Your task to perform on an android device: Go to eBay Image 0: 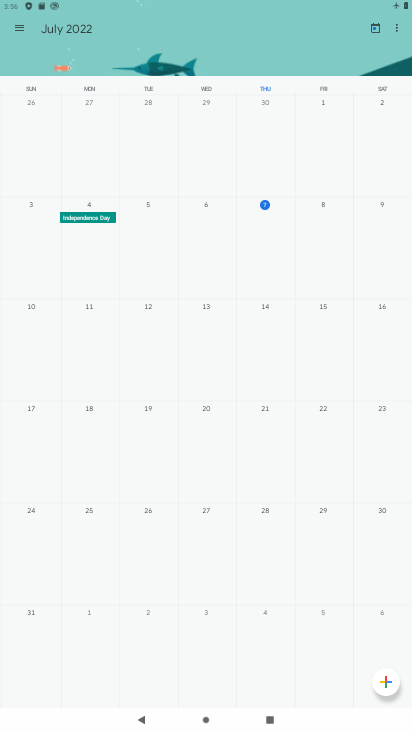
Step 0: press home button
Your task to perform on an android device: Go to eBay Image 1: 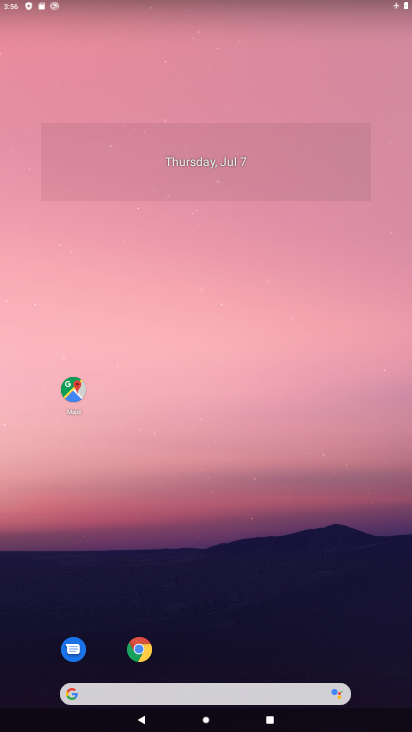
Step 1: drag from (198, 593) to (284, 4)
Your task to perform on an android device: Go to eBay Image 2: 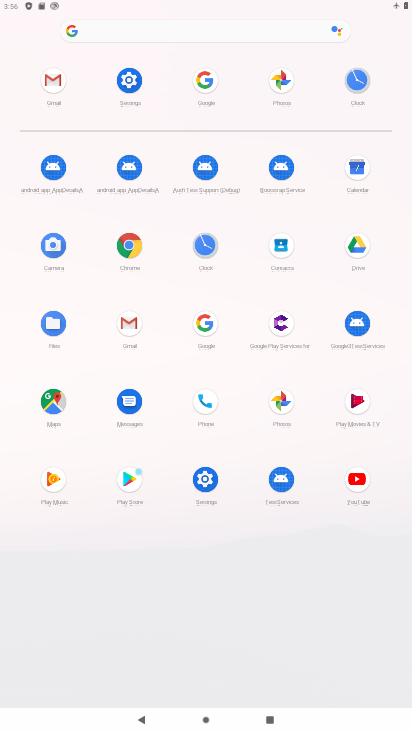
Step 2: click (136, 246)
Your task to perform on an android device: Go to eBay Image 3: 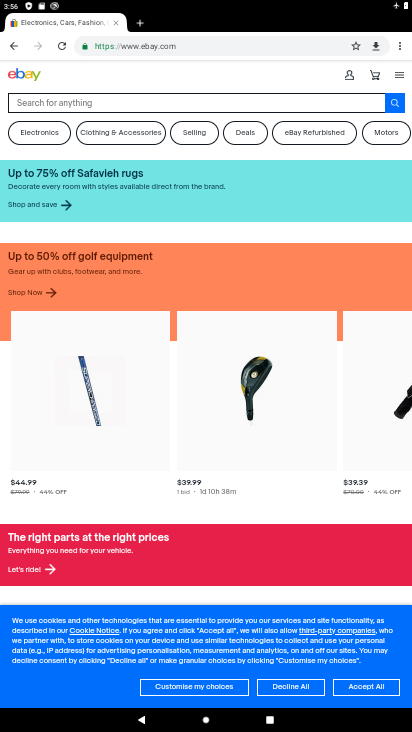
Step 3: task complete